Your task to perform on an android device: Show me recent news Image 0: 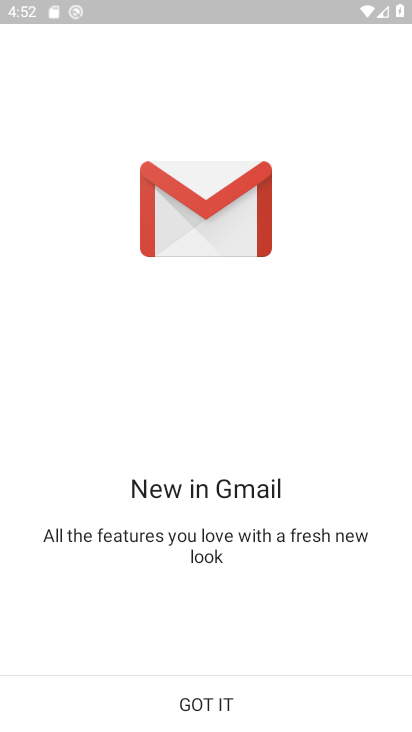
Step 0: click (224, 706)
Your task to perform on an android device: Show me recent news Image 1: 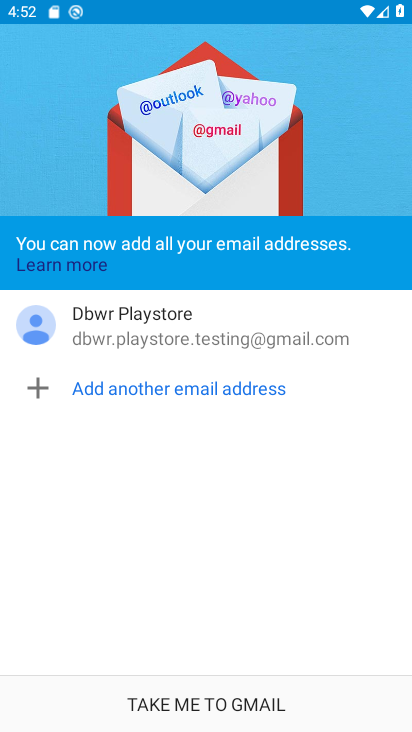
Step 1: click (224, 706)
Your task to perform on an android device: Show me recent news Image 2: 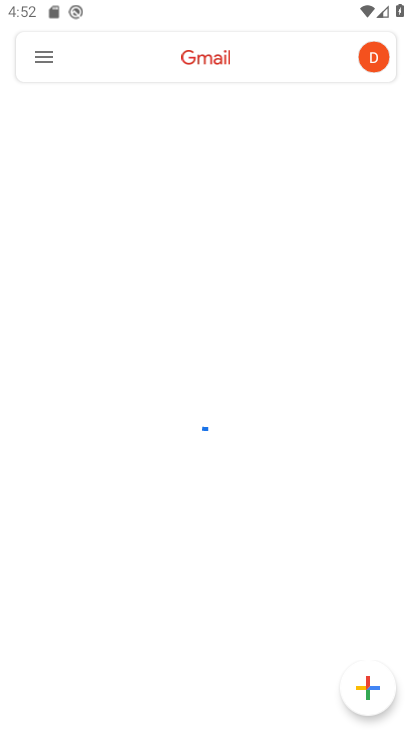
Step 2: press home button
Your task to perform on an android device: Show me recent news Image 3: 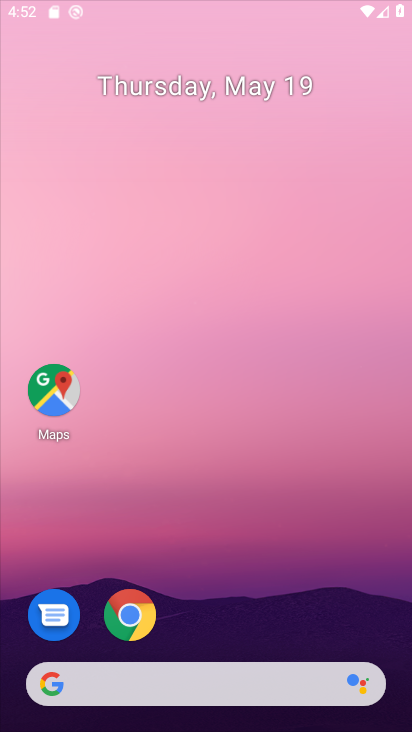
Step 3: drag from (274, 695) to (227, 32)
Your task to perform on an android device: Show me recent news Image 4: 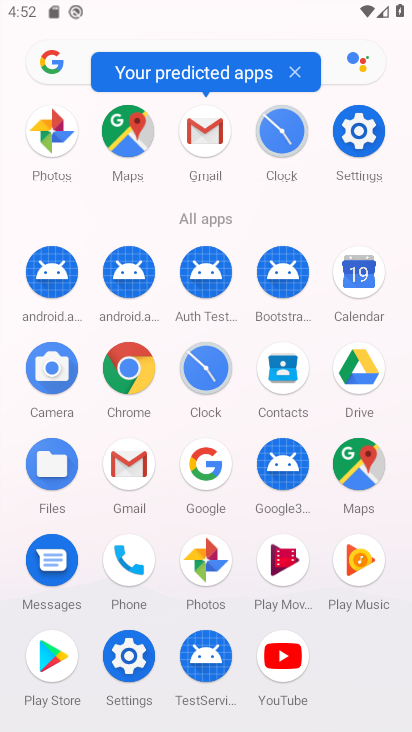
Step 4: click (136, 369)
Your task to perform on an android device: Show me recent news Image 5: 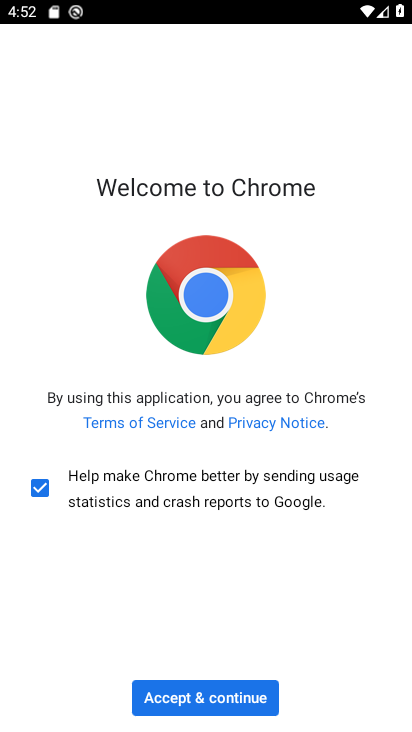
Step 5: click (225, 694)
Your task to perform on an android device: Show me recent news Image 6: 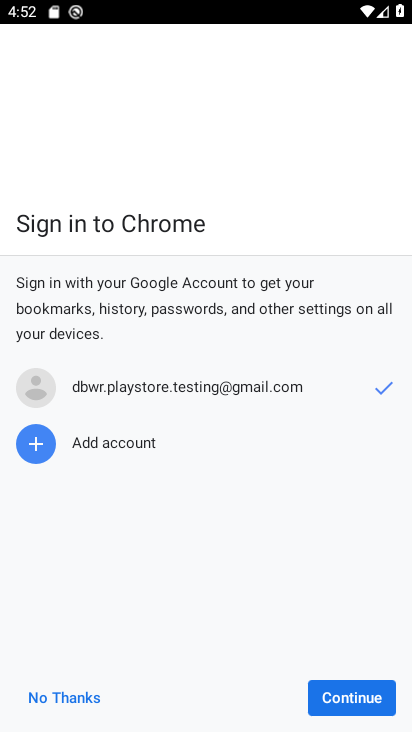
Step 6: click (62, 696)
Your task to perform on an android device: Show me recent news Image 7: 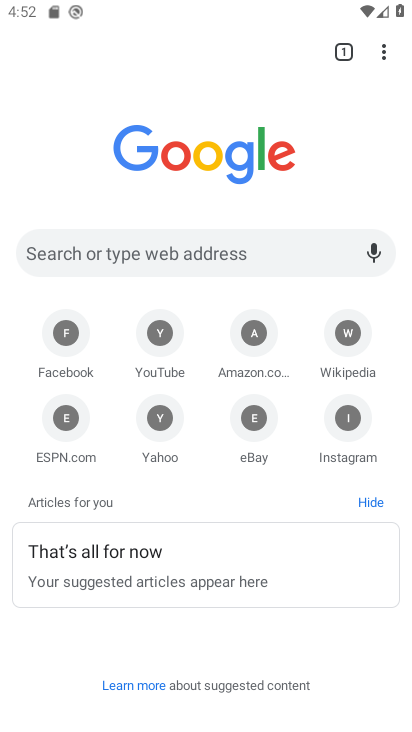
Step 7: click (198, 55)
Your task to perform on an android device: Show me recent news Image 8: 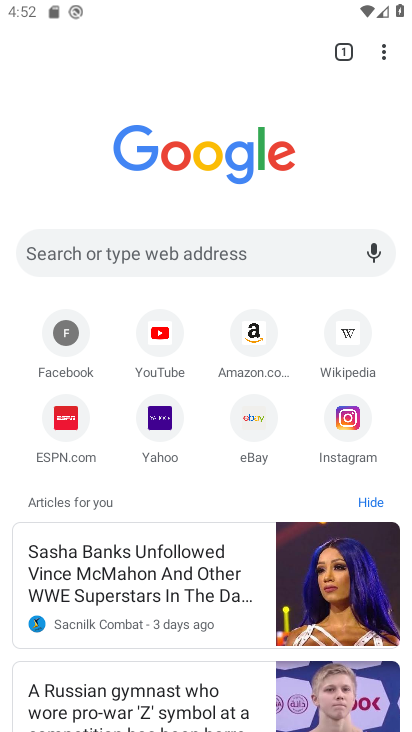
Step 8: click (201, 257)
Your task to perform on an android device: Show me recent news Image 9: 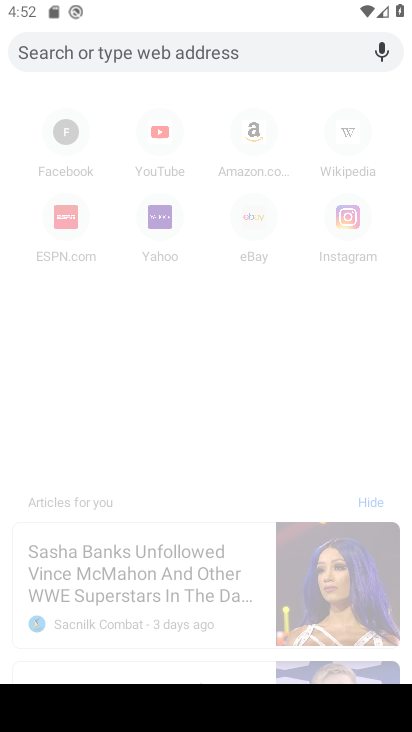
Step 9: type "recent news"
Your task to perform on an android device: Show me recent news Image 10: 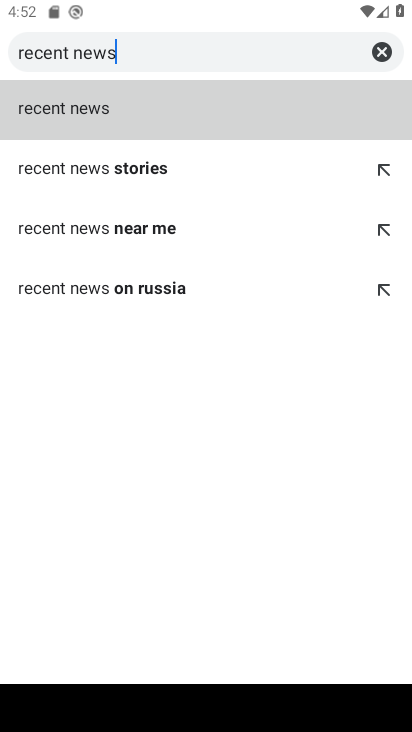
Step 10: click (121, 102)
Your task to perform on an android device: Show me recent news Image 11: 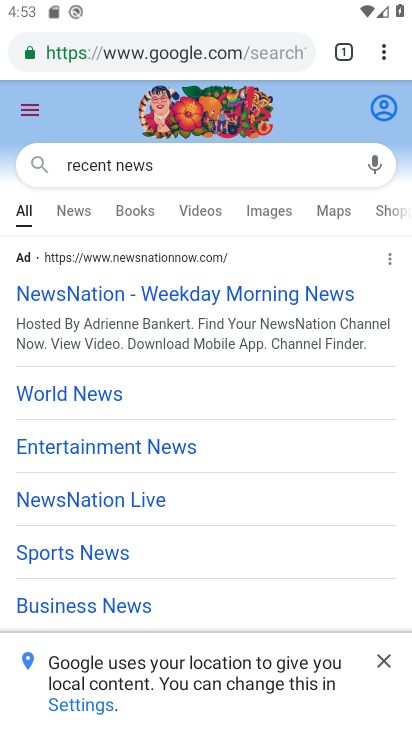
Step 11: task complete